Your task to perform on an android device: Open calendar and show me the fourth week of next month Image 0: 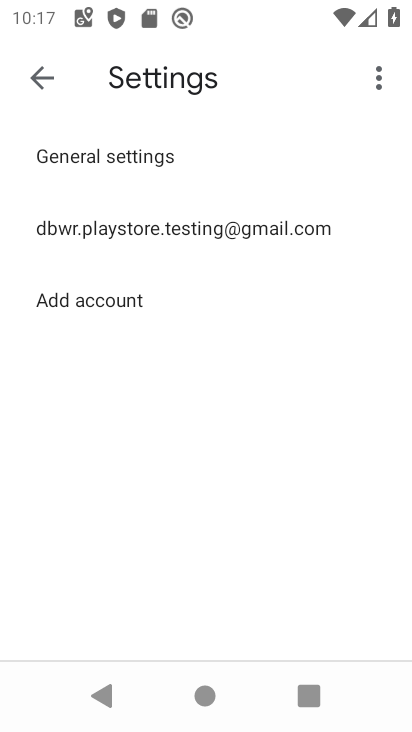
Step 0: press back button
Your task to perform on an android device: Open calendar and show me the fourth week of next month Image 1: 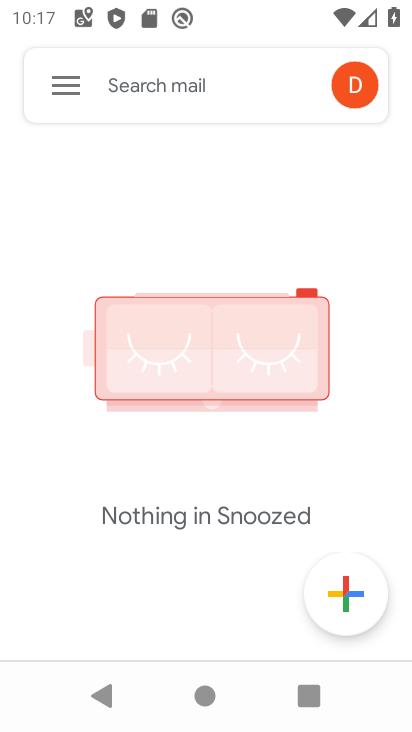
Step 1: press home button
Your task to perform on an android device: Open calendar and show me the fourth week of next month Image 2: 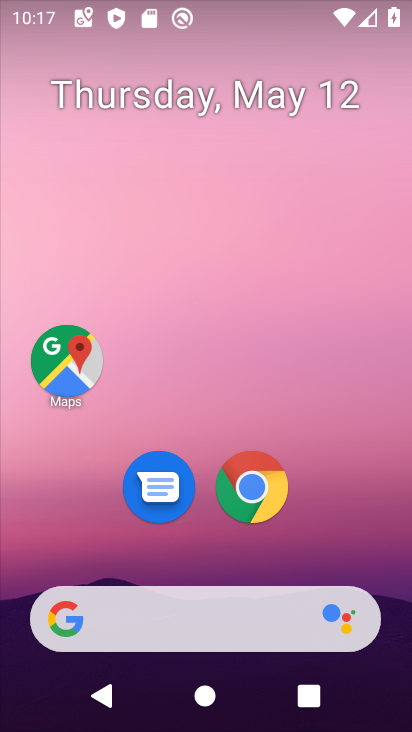
Step 2: drag from (30, 580) to (230, 164)
Your task to perform on an android device: Open calendar and show me the fourth week of next month Image 3: 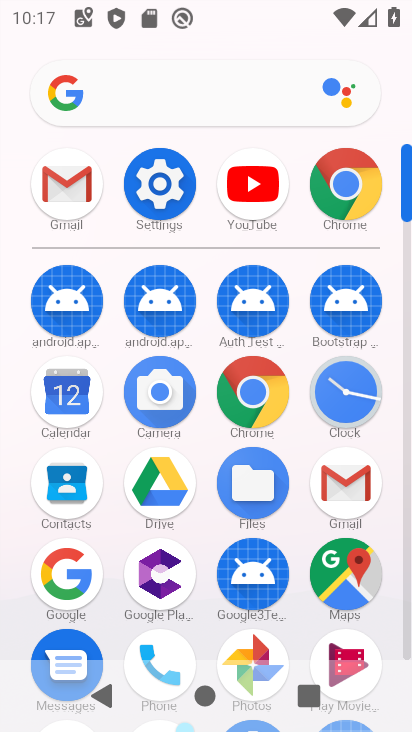
Step 3: click (59, 396)
Your task to perform on an android device: Open calendar and show me the fourth week of next month Image 4: 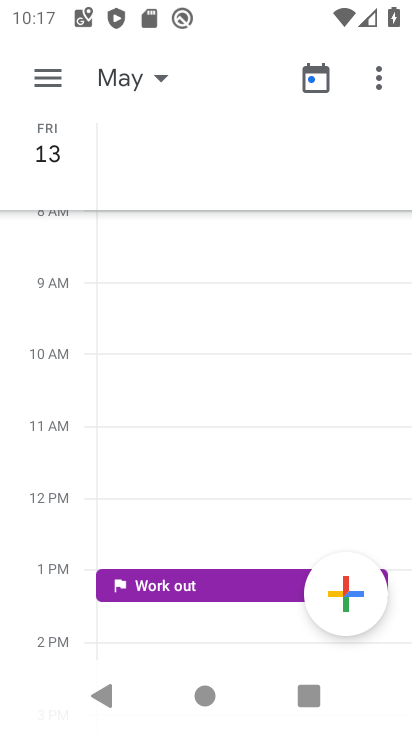
Step 4: click (143, 81)
Your task to perform on an android device: Open calendar and show me the fourth week of next month Image 5: 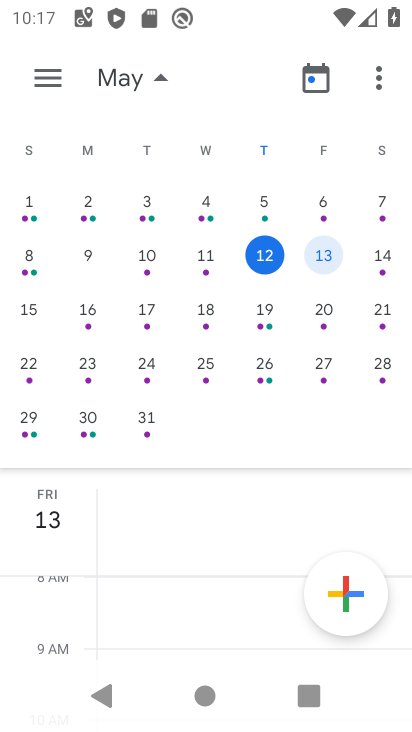
Step 5: drag from (401, 322) to (19, 298)
Your task to perform on an android device: Open calendar and show me the fourth week of next month Image 6: 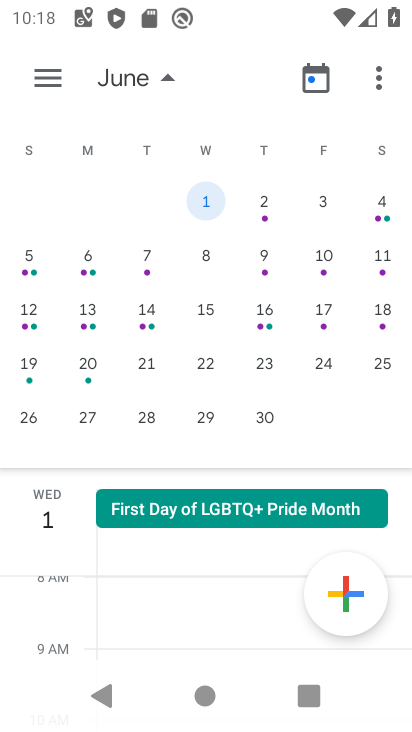
Step 6: click (206, 256)
Your task to perform on an android device: Open calendar and show me the fourth week of next month Image 7: 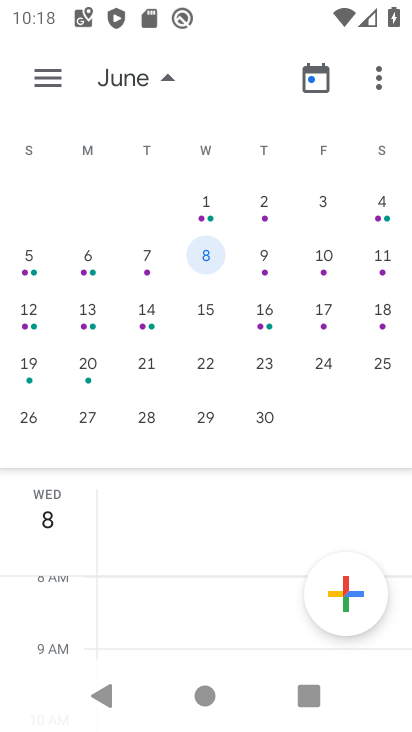
Step 7: click (218, 315)
Your task to perform on an android device: Open calendar and show me the fourth week of next month Image 8: 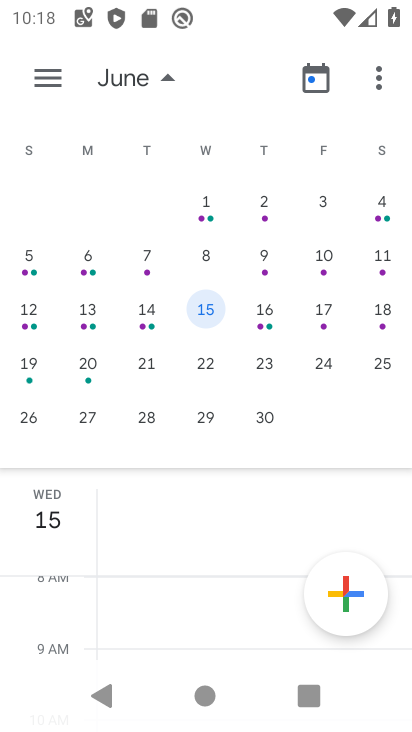
Step 8: click (206, 363)
Your task to perform on an android device: Open calendar and show me the fourth week of next month Image 9: 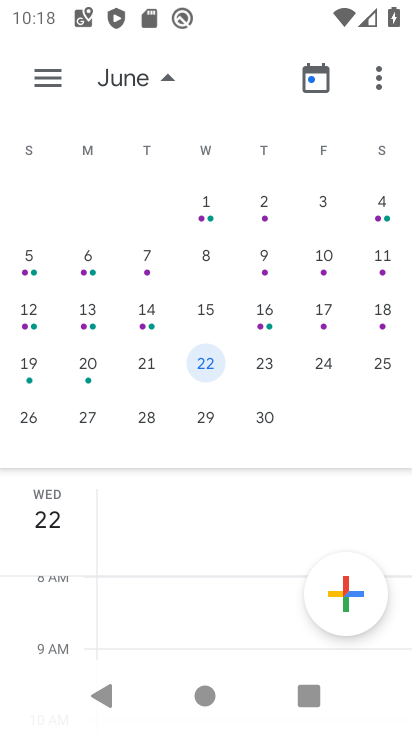
Step 9: task complete